Your task to perform on an android device: find snoozed emails in the gmail app Image 0: 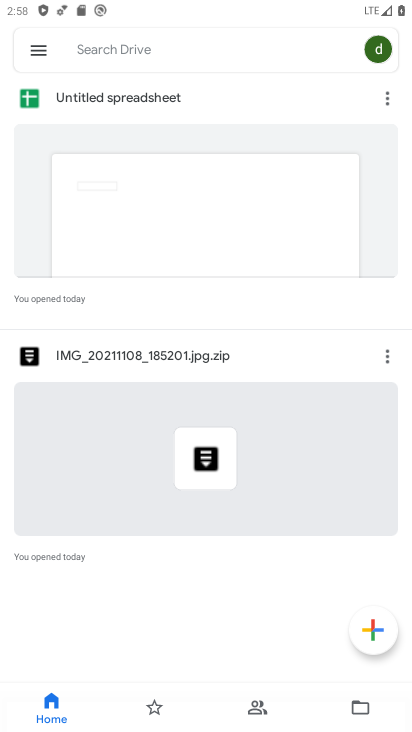
Step 0: press home button
Your task to perform on an android device: find snoozed emails in the gmail app Image 1: 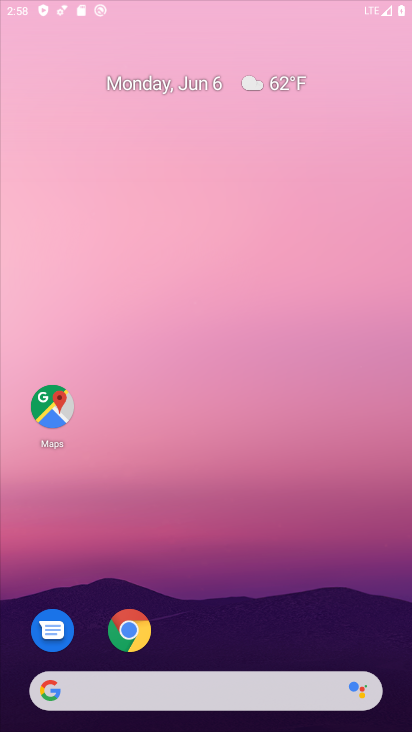
Step 1: drag from (188, 621) to (182, 136)
Your task to perform on an android device: find snoozed emails in the gmail app Image 2: 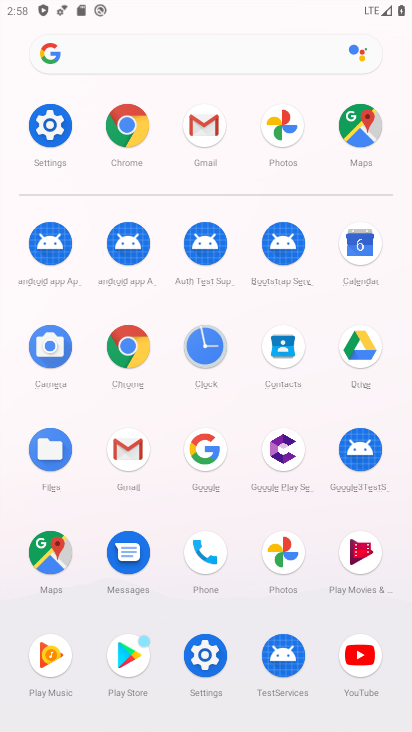
Step 2: click (200, 127)
Your task to perform on an android device: find snoozed emails in the gmail app Image 3: 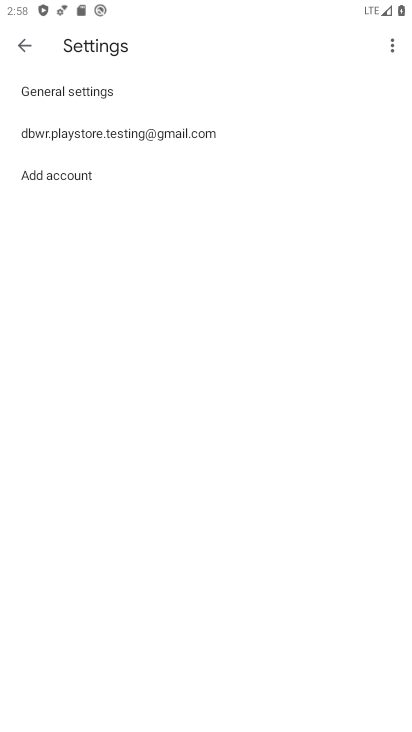
Step 3: click (30, 38)
Your task to perform on an android device: find snoozed emails in the gmail app Image 4: 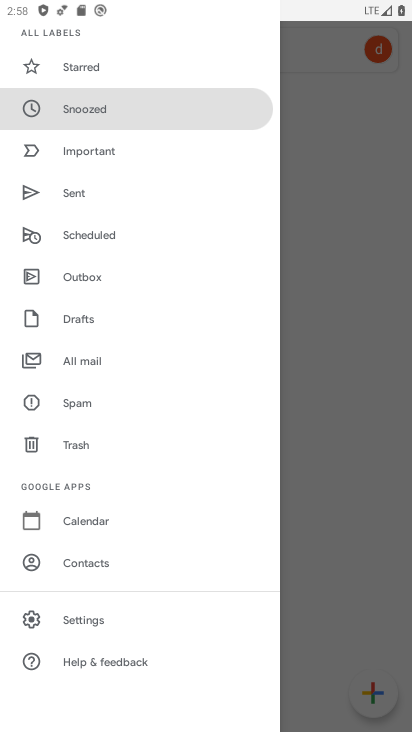
Step 4: click (72, 102)
Your task to perform on an android device: find snoozed emails in the gmail app Image 5: 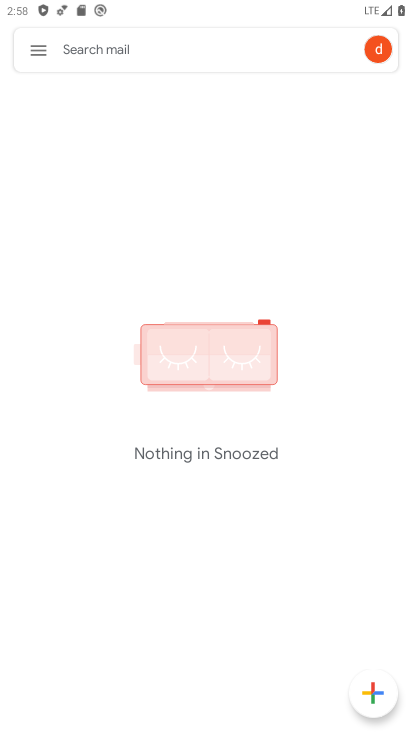
Step 5: task complete